Your task to perform on an android device: Open the calendar app, open the side menu, and click the "Day" option Image 0: 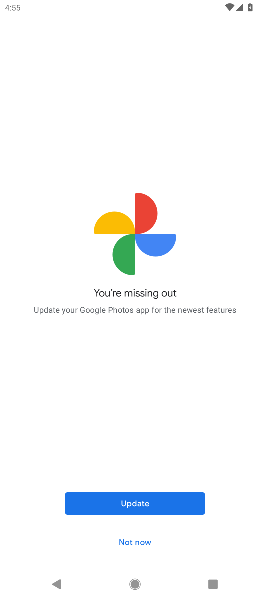
Step 0: press home button
Your task to perform on an android device: Open the calendar app, open the side menu, and click the "Day" option Image 1: 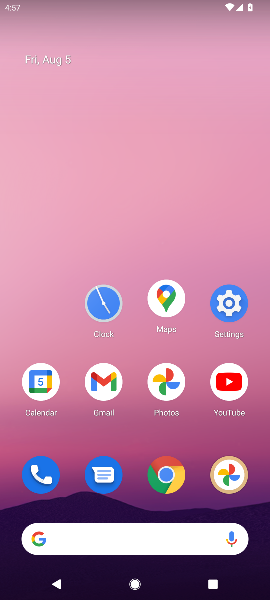
Step 1: click (52, 385)
Your task to perform on an android device: Open the calendar app, open the side menu, and click the "Day" option Image 2: 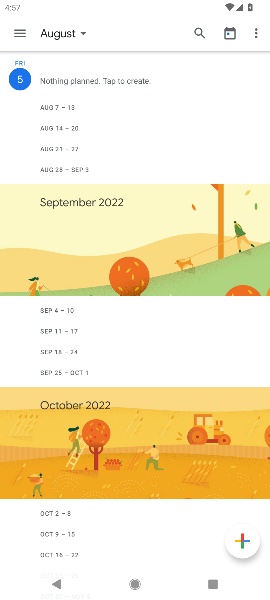
Step 2: click (20, 36)
Your task to perform on an android device: Open the calendar app, open the side menu, and click the "Day" option Image 3: 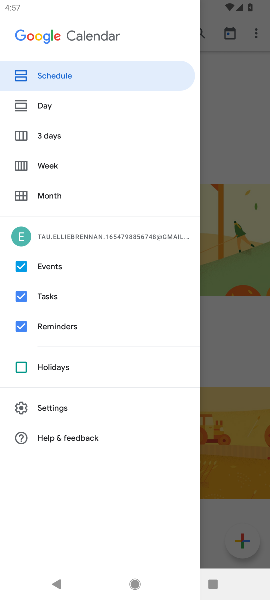
Step 3: click (51, 103)
Your task to perform on an android device: Open the calendar app, open the side menu, and click the "Day" option Image 4: 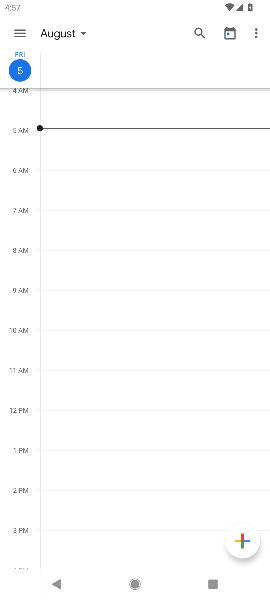
Step 4: task complete